Your task to perform on an android device: Open internet settings Image 0: 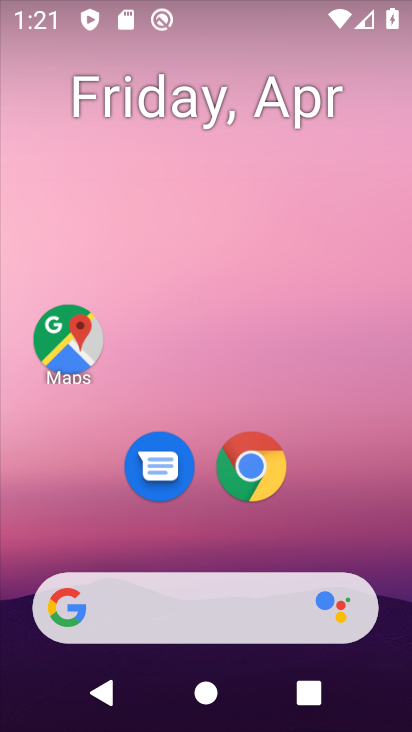
Step 0: drag from (317, 508) to (307, 79)
Your task to perform on an android device: Open internet settings Image 1: 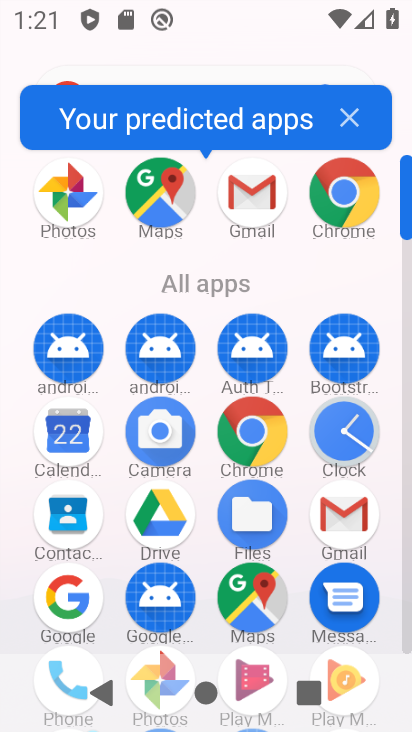
Step 1: drag from (213, 632) to (209, 229)
Your task to perform on an android device: Open internet settings Image 2: 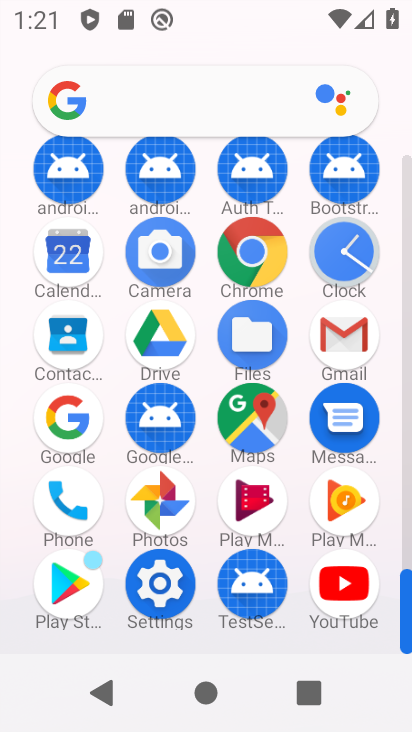
Step 2: click (168, 593)
Your task to perform on an android device: Open internet settings Image 3: 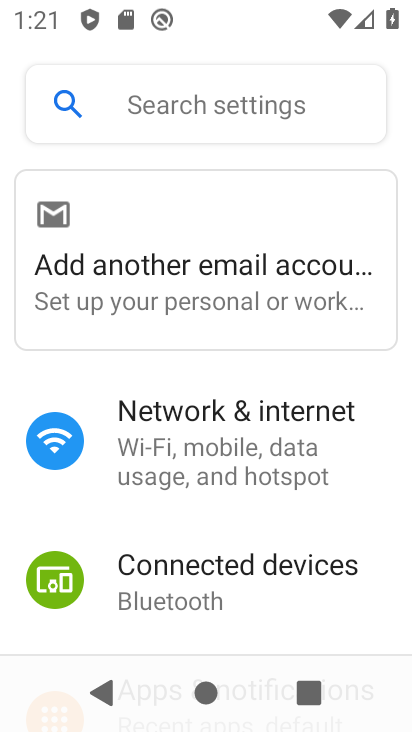
Step 3: click (303, 431)
Your task to perform on an android device: Open internet settings Image 4: 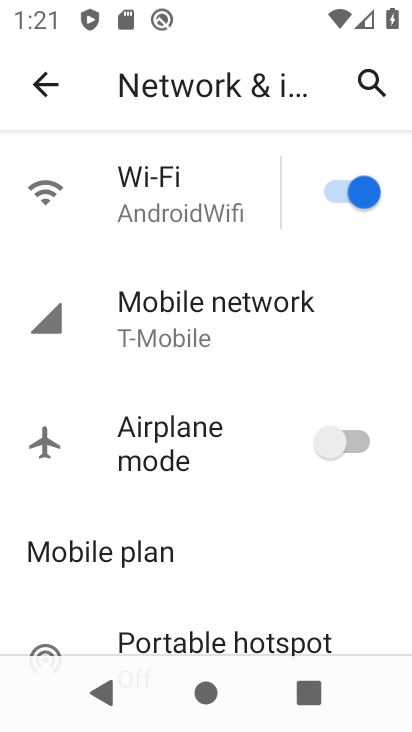
Step 4: task complete